Your task to perform on an android device: Go to network settings Image 0: 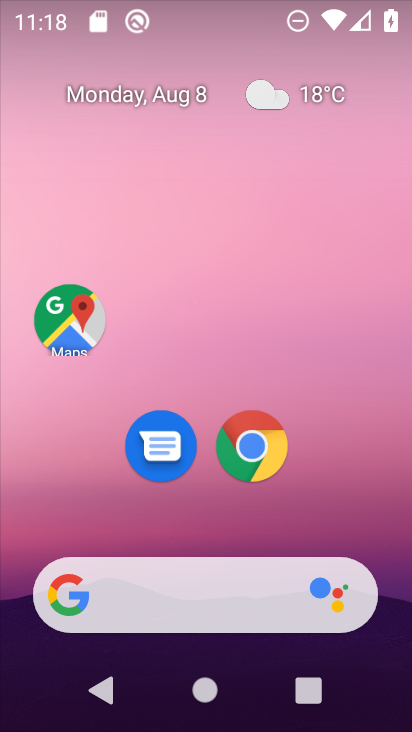
Step 0: drag from (397, 627) to (349, 242)
Your task to perform on an android device: Go to network settings Image 1: 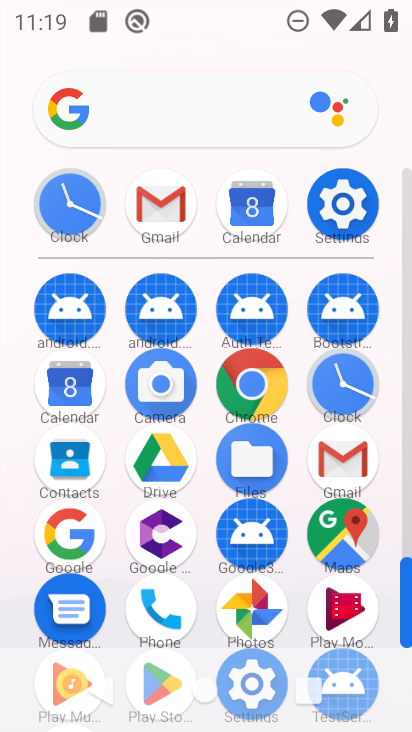
Step 1: drag from (406, 541) to (403, 502)
Your task to perform on an android device: Go to network settings Image 2: 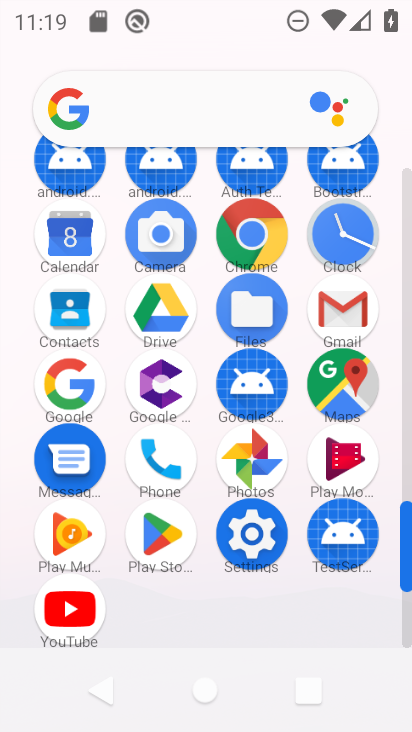
Step 2: click (252, 533)
Your task to perform on an android device: Go to network settings Image 3: 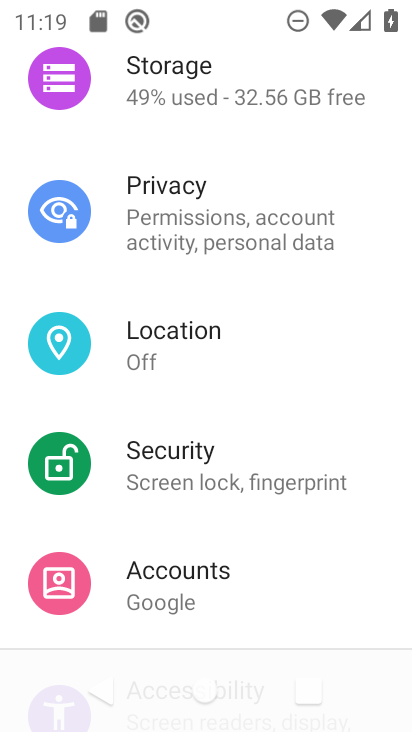
Step 3: drag from (338, 137) to (348, 482)
Your task to perform on an android device: Go to network settings Image 4: 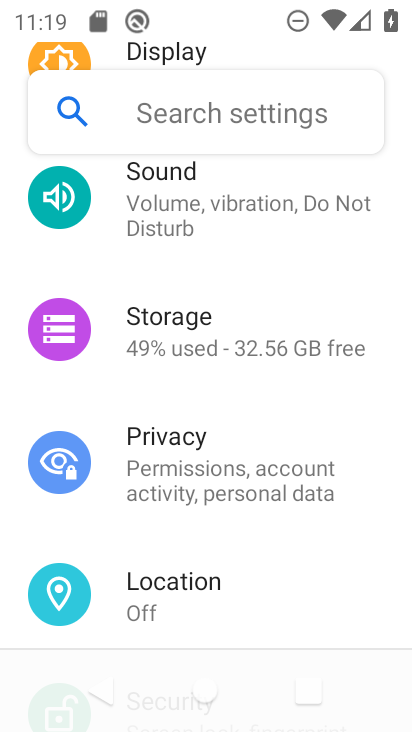
Step 4: drag from (337, 262) to (322, 534)
Your task to perform on an android device: Go to network settings Image 5: 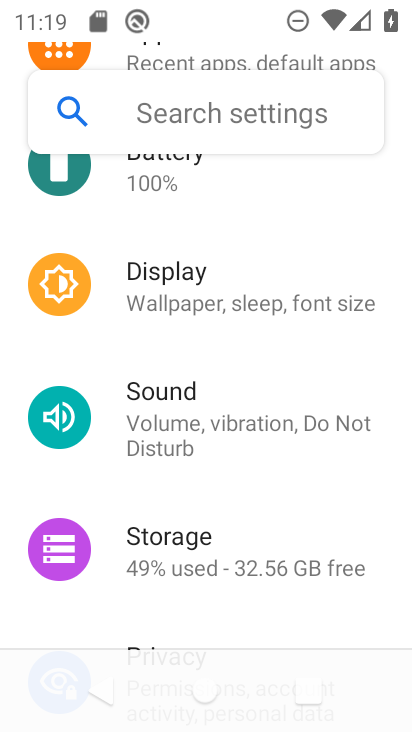
Step 5: drag from (262, 233) to (275, 487)
Your task to perform on an android device: Go to network settings Image 6: 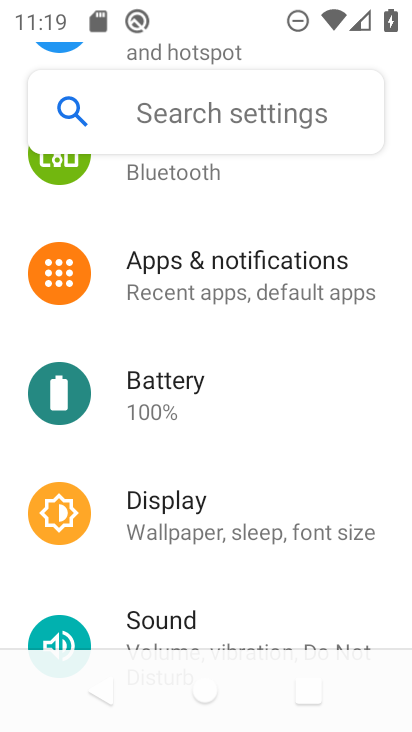
Step 6: drag from (311, 198) to (298, 483)
Your task to perform on an android device: Go to network settings Image 7: 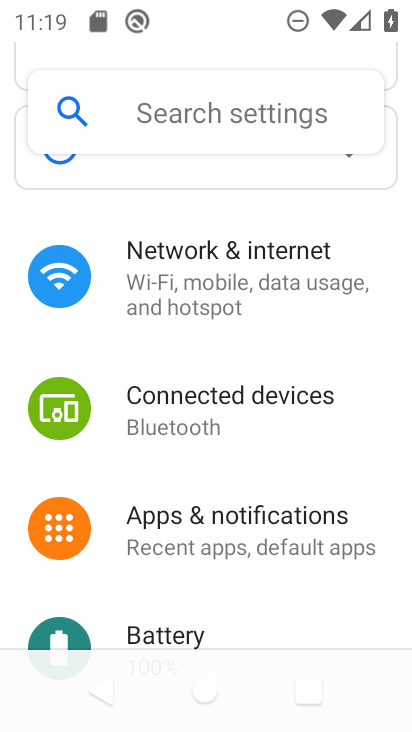
Step 7: click (184, 280)
Your task to perform on an android device: Go to network settings Image 8: 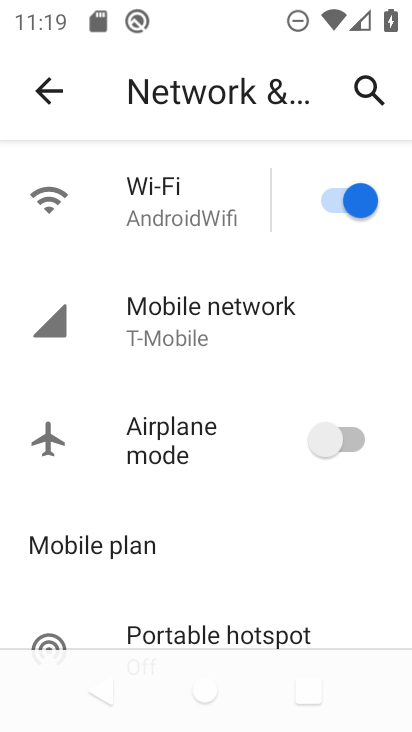
Step 8: click (163, 307)
Your task to perform on an android device: Go to network settings Image 9: 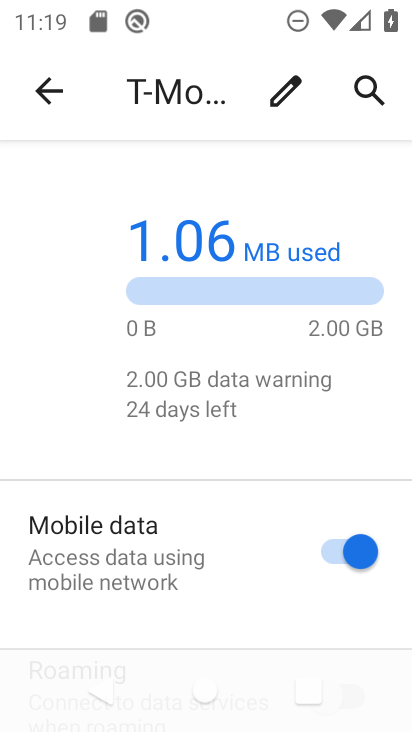
Step 9: task complete